Your task to perform on an android device: open the mobile data screen to see how much data has been used Image 0: 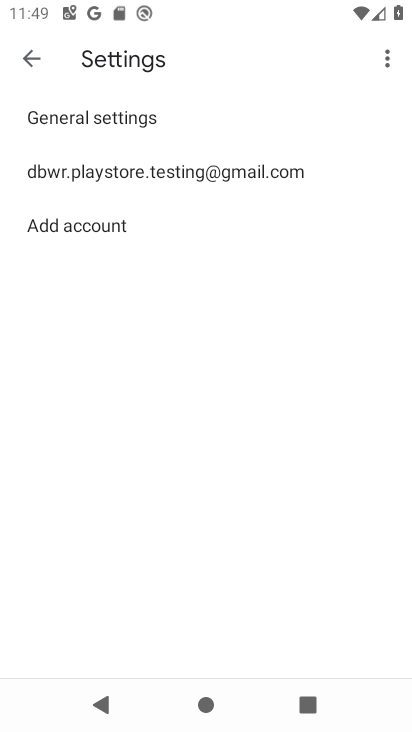
Step 0: press home button
Your task to perform on an android device: open the mobile data screen to see how much data has been used Image 1: 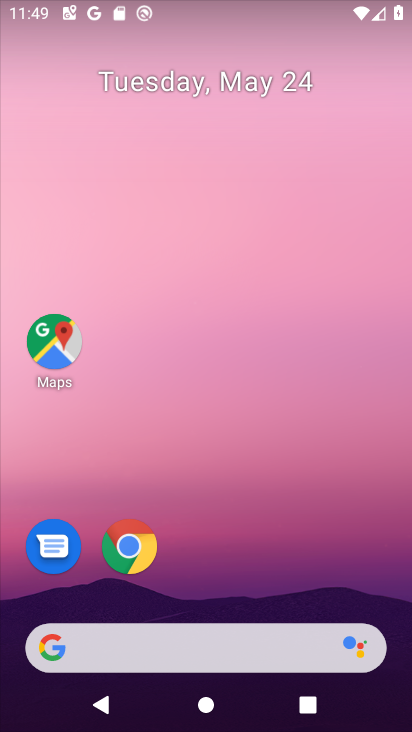
Step 1: drag from (277, 519) to (175, 6)
Your task to perform on an android device: open the mobile data screen to see how much data has been used Image 2: 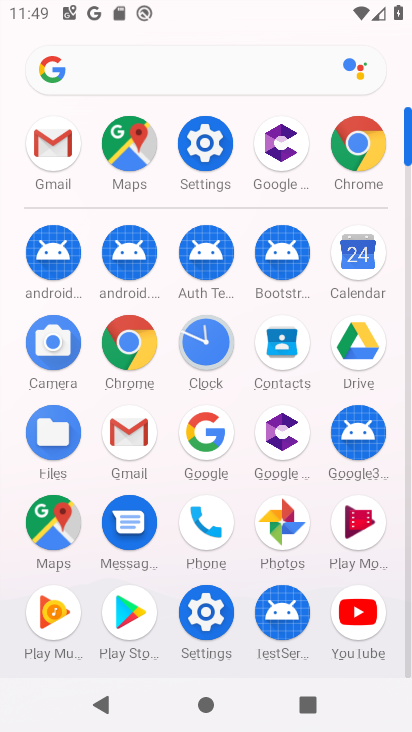
Step 2: click (216, 153)
Your task to perform on an android device: open the mobile data screen to see how much data has been used Image 3: 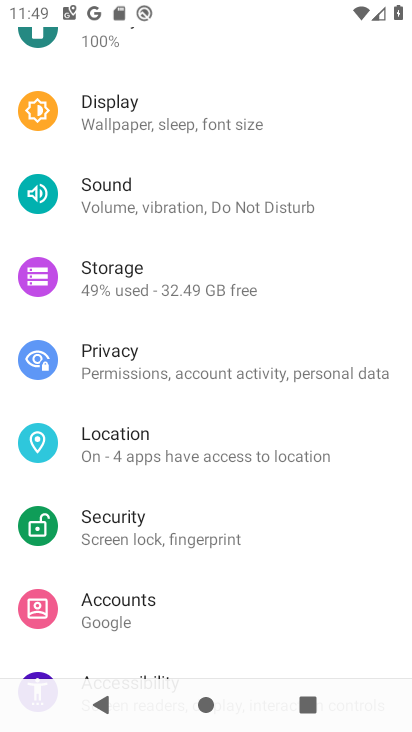
Step 3: drag from (211, 167) to (238, 661)
Your task to perform on an android device: open the mobile data screen to see how much data has been used Image 4: 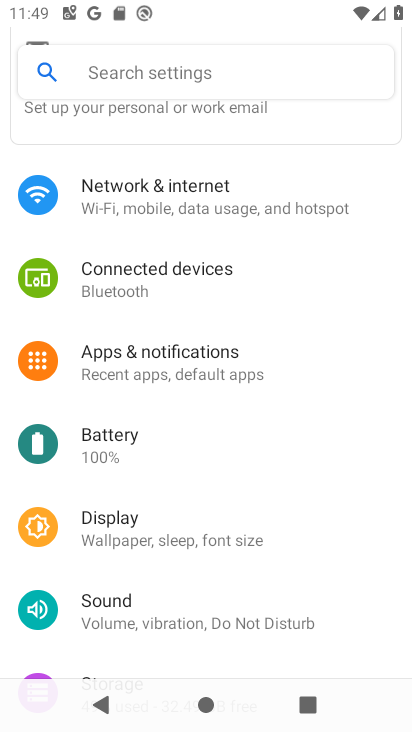
Step 4: click (196, 207)
Your task to perform on an android device: open the mobile data screen to see how much data has been used Image 5: 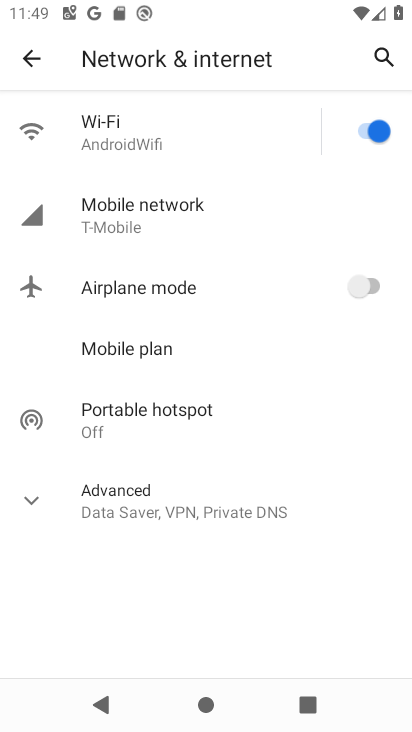
Step 5: click (198, 212)
Your task to perform on an android device: open the mobile data screen to see how much data has been used Image 6: 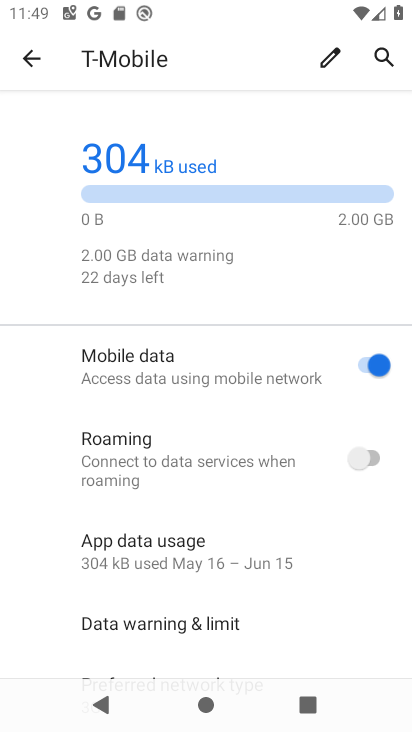
Step 6: click (244, 555)
Your task to perform on an android device: open the mobile data screen to see how much data has been used Image 7: 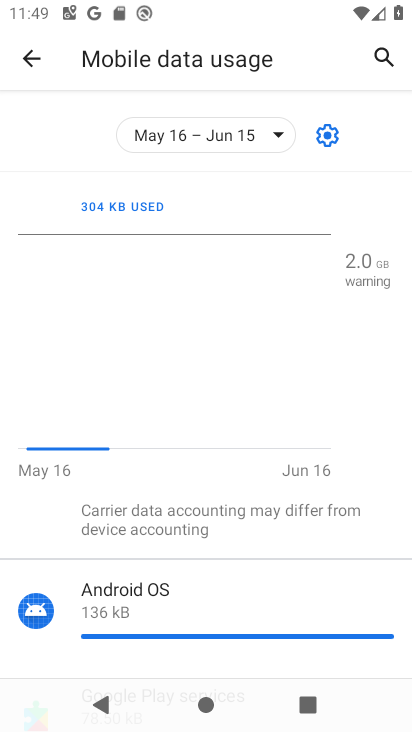
Step 7: task complete